Your task to perform on an android device: Open Wikipedia Image 0: 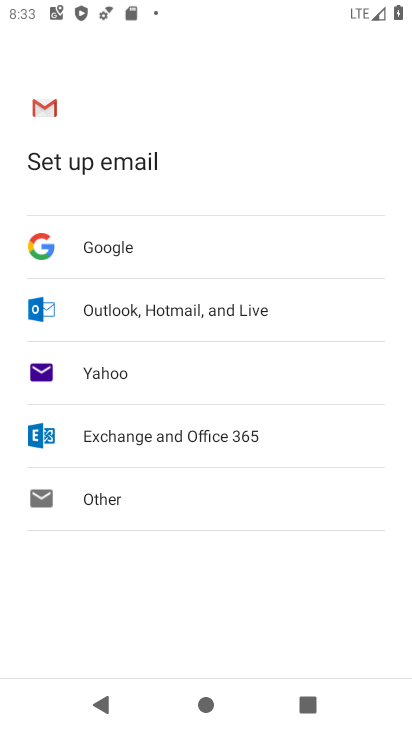
Step 0: press home button
Your task to perform on an android device: Open Wikipedia Image 1: 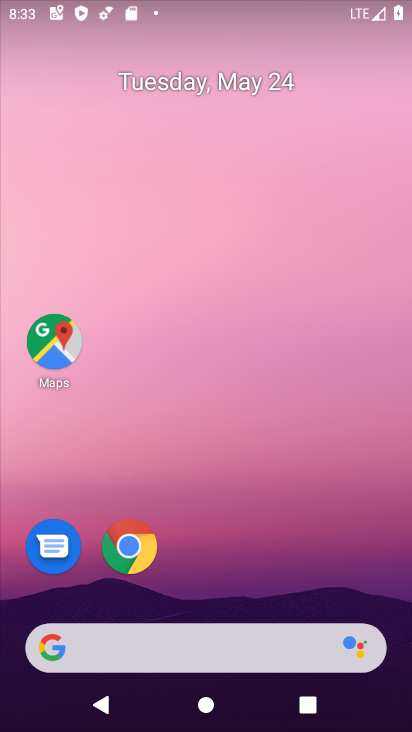
Step 1: click (138, 538)
Your task to perform on an android device: Open Wikipedia Image 2: 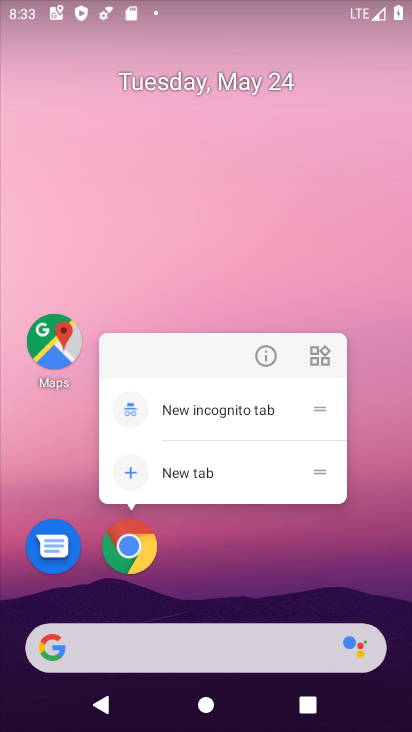
Step 2: click (138, 538)
Your task to perform on an android device: Open Wikipedia Image 3: 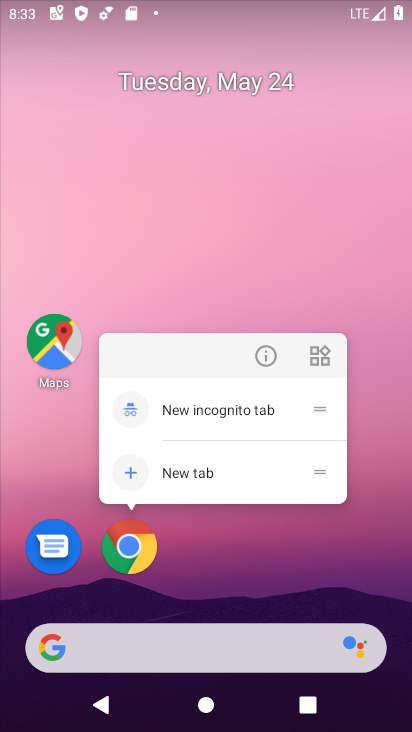
Step 3: click (130, 542)
Your task to perform on an android device: Open Wikipedia Image 4: 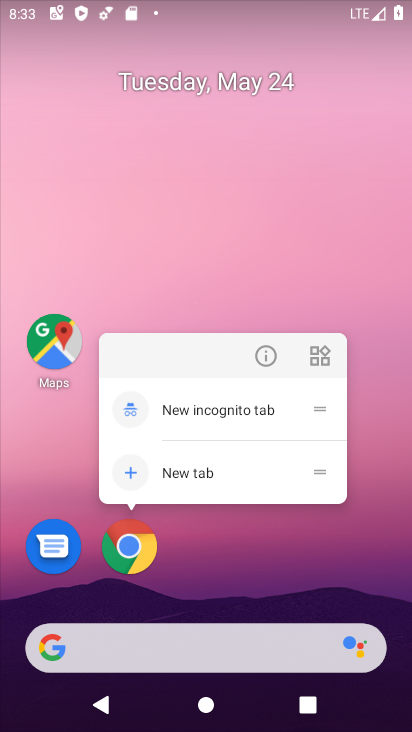
Step 4: click (130, 542)
Your task to perform on an android device: Open Wikipedia Image 5: 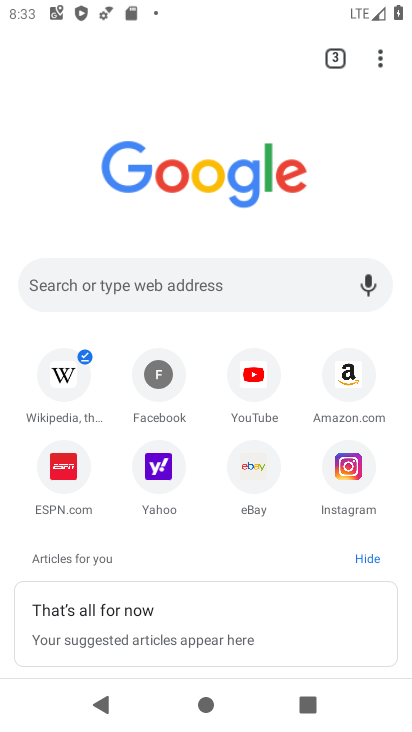
Step 5: click (56, 370)
Your task to perform on an android device: Open Wikipedia Image 6: 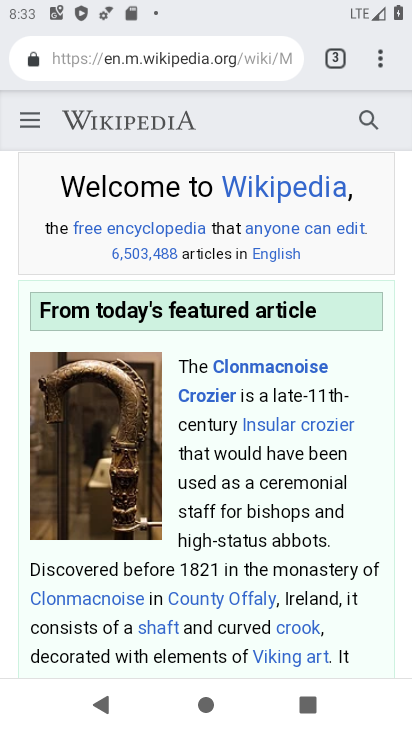
Step 6: task complete